Your task to perform on an android device: Empty the shopping cart on newegg.com. Image 0: 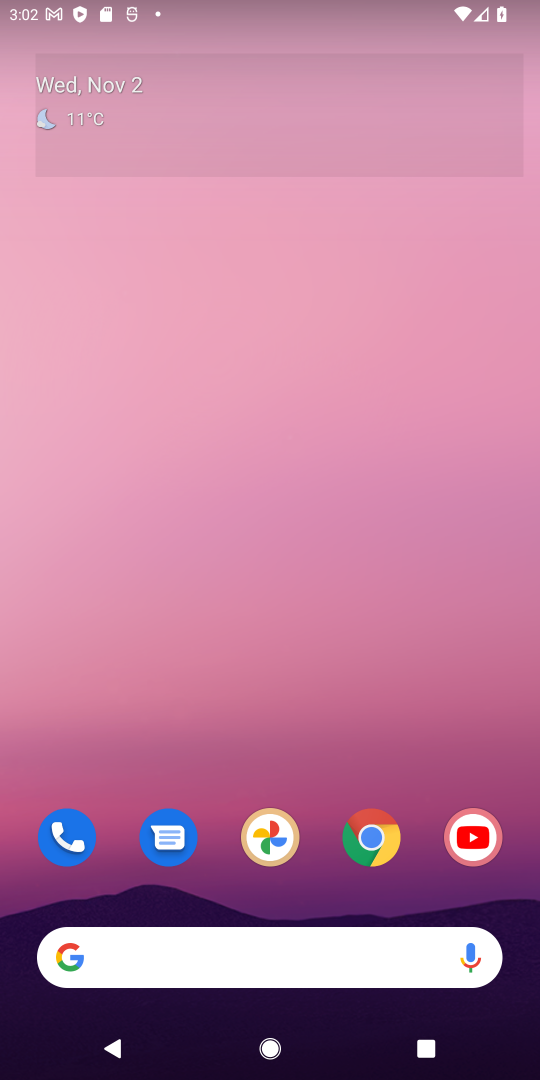
Step 0: press home button
Your task to perform on an android device: Empty the shopping cart on newegg.com. Image 1: 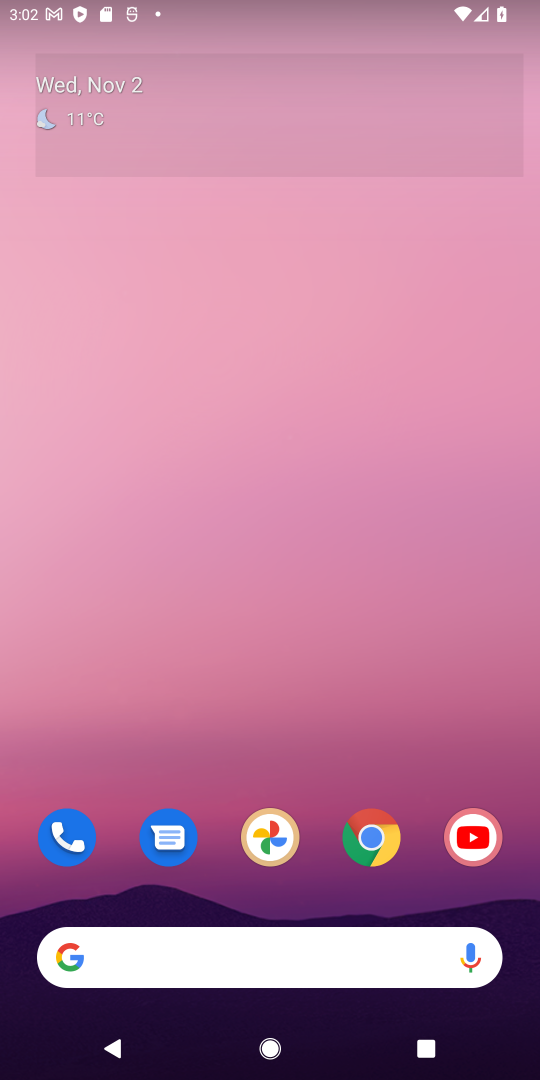
Step 1: drag from (325, 741) to (320, 101)
Your task to perform on an android device: Empty the shopping cart on newegg.com. Image 2: 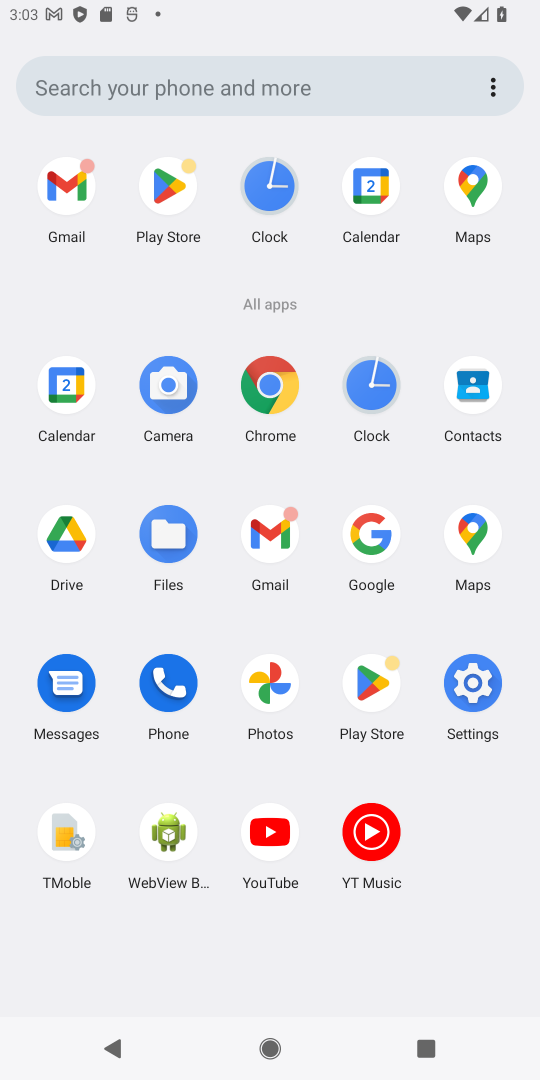
Step 2: click (261, 394)
Your task to perform on an android device: Empty the shopping cart on newegg.com. Image 3: 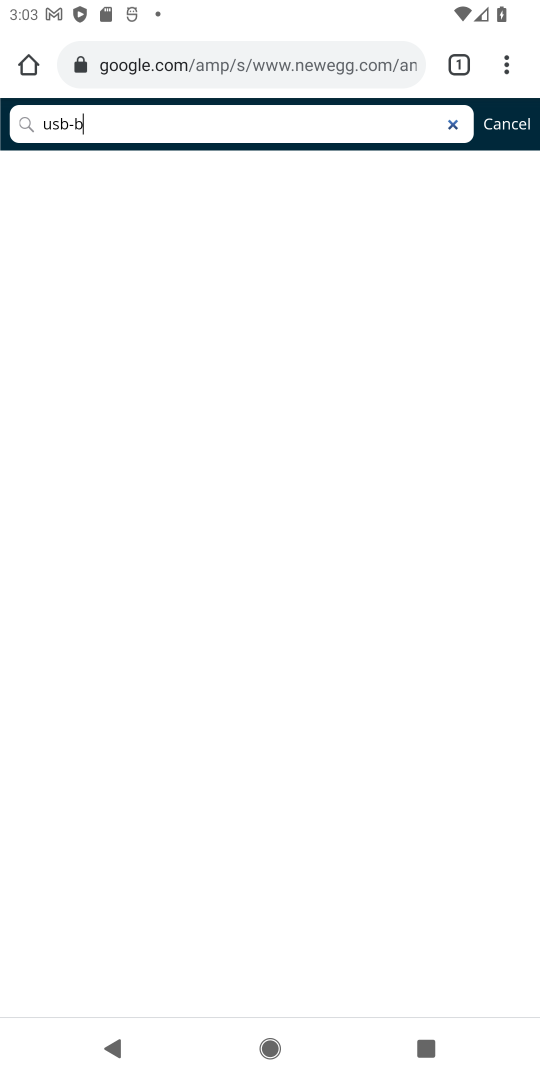
Step 3: click (448, 127)
Your task to perform on an android device: Empty the shopping cart on newegg.com. Image 4: 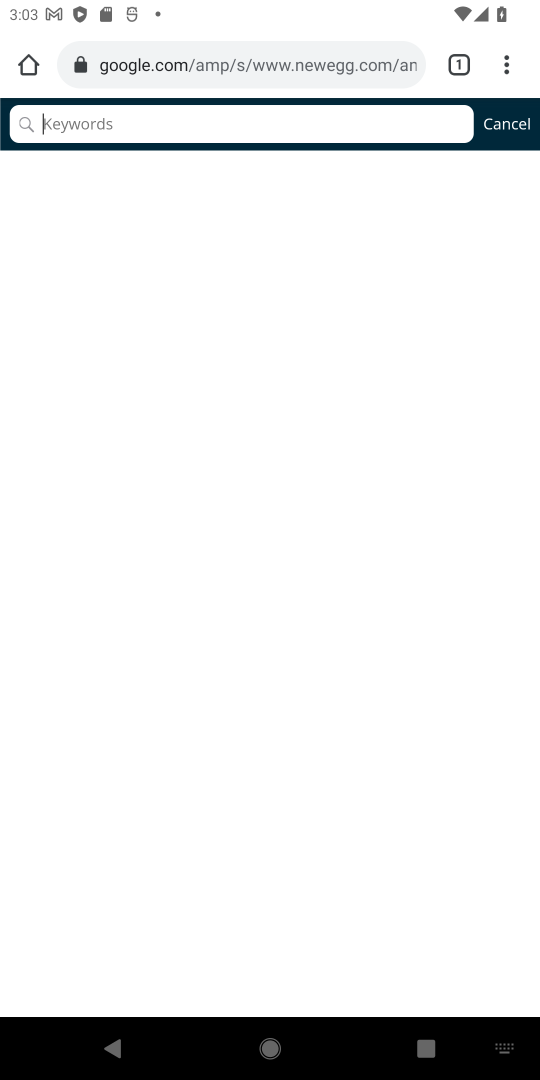
Step 4: press back button
Your task to perform on an android device: Empty the shopping cart on newegg.com. Image 5: 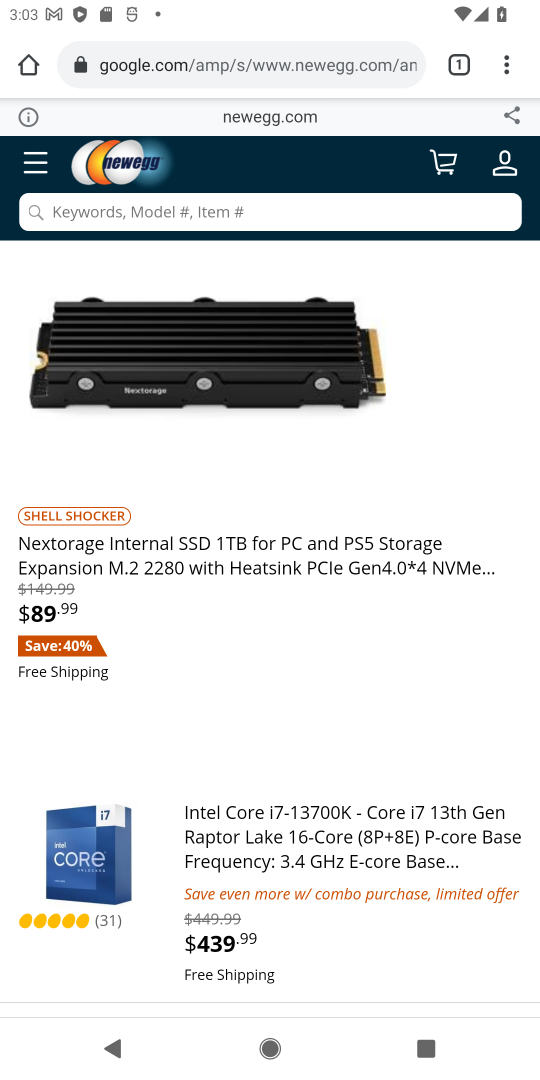
Step 5: click (445, 169)
Your task to perform on an android device: Empty the shopping cart on newegg.com. Image 6: 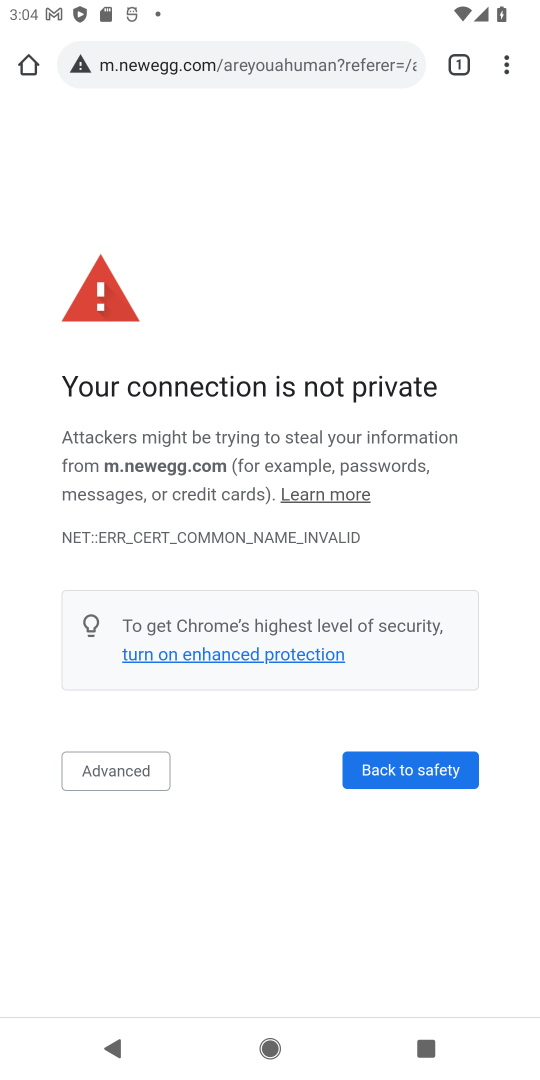
Step 6: press back button
Your task to perform on an android device: Empty the shopping cart on newegg.com. Image 7: 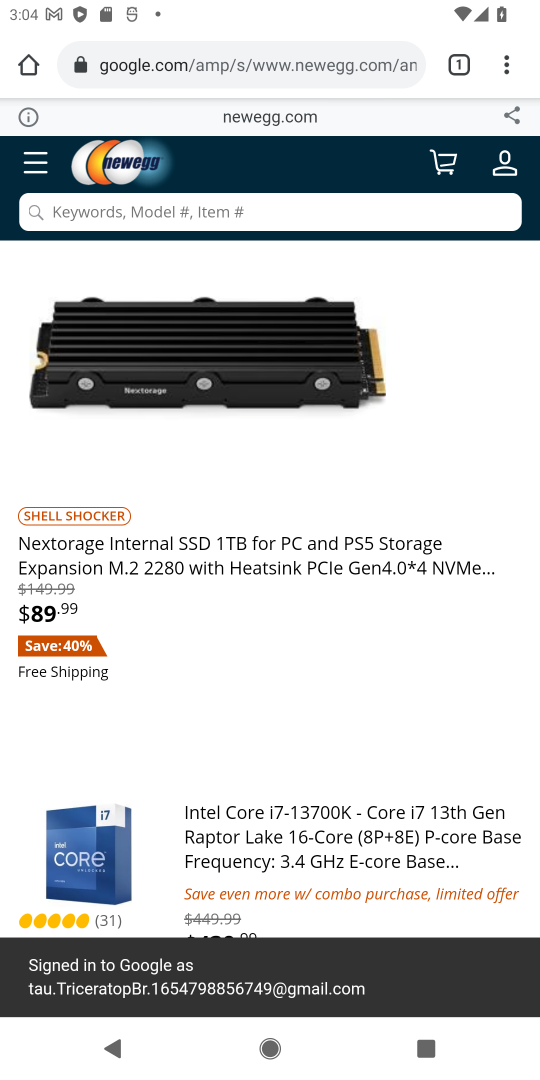
Step 7: click (436, 169)
Your task to perform on an android device: Empty the shopping cart on newegg.com. Image 8: 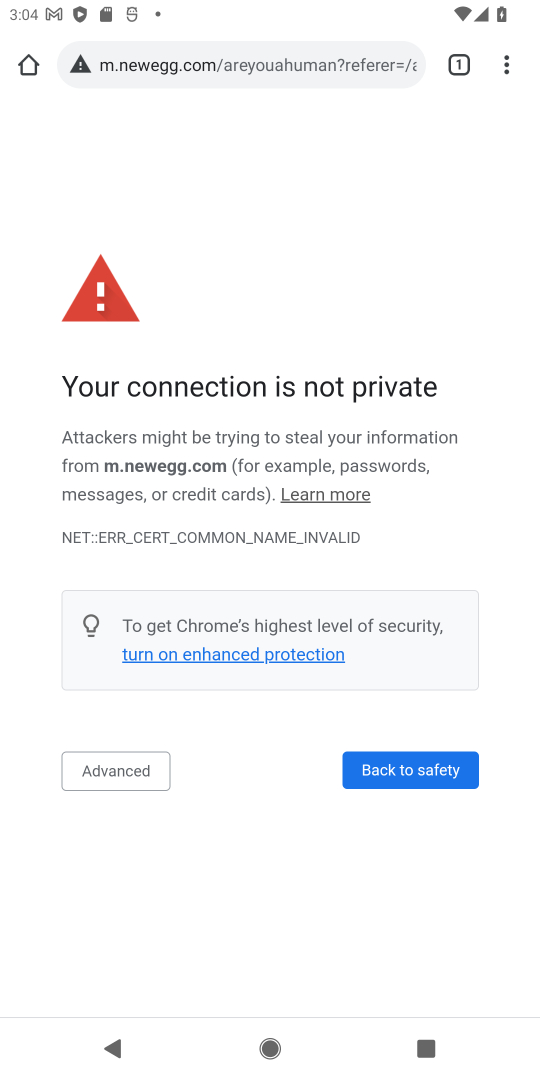
Step 8: click (402, 777)
Your task to perform on an android device: Empty the shopping cart on newegg.com. Image 9: 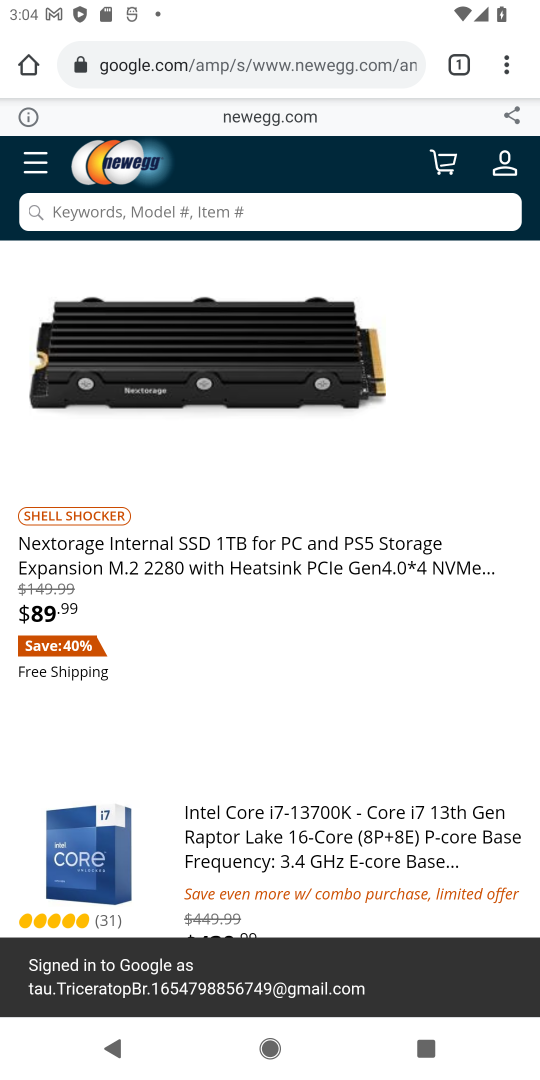
Step 9: task complete